Your task to perform on an android device: Search for a coffee table on IKEA Image 0: 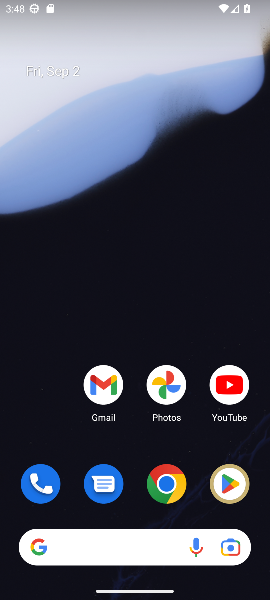
Step 0: click (157, 490)
Your task to perform on an android device: Search for a coffee table on IKEA Image 1: 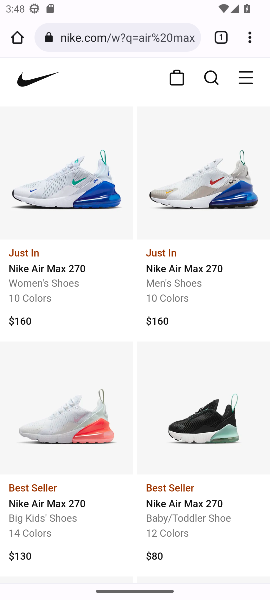
Step 1: click (146, 36)
Your task to perform on an android device: Search for a coffee table on IKEA Image 2: 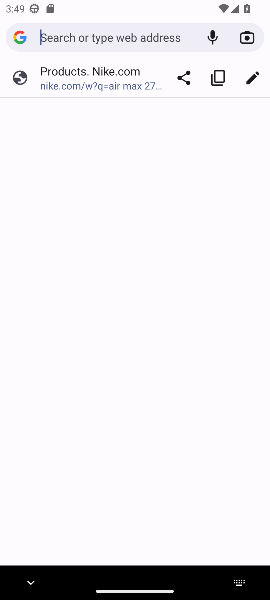
Step 2: type " IKEA"
Your task to perform on an android device: Search for a coffee table on IKEA Image 3: 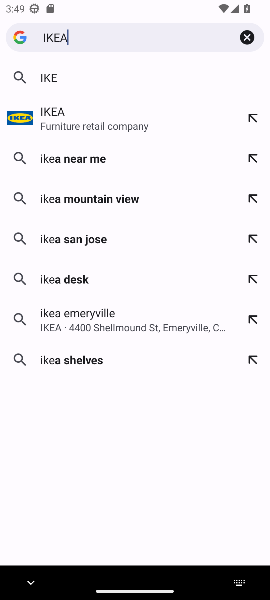
Step 3: press enter
Your task to perform on an android device: Search for a coffee table on IKEA Image 4: 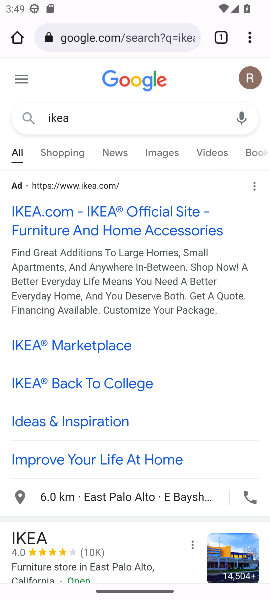
Step 4: click (72, 222)
Your task to perform on an android device: Search for a coffee table on IKEA Image 5: 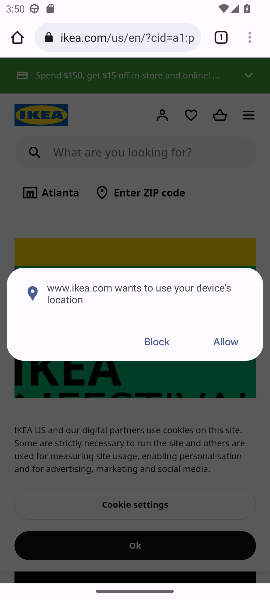
Step 5: click (159, 343)
Your task to perform on an android device: Search for a coffee table on IKEA Image 6: 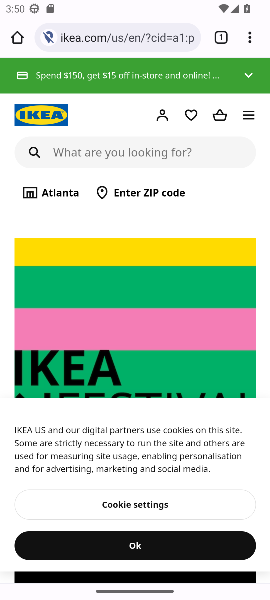
Step 6: click (51, 153)
Your task to perform on an android device: Search for a coffee table on IKEA Image 7: 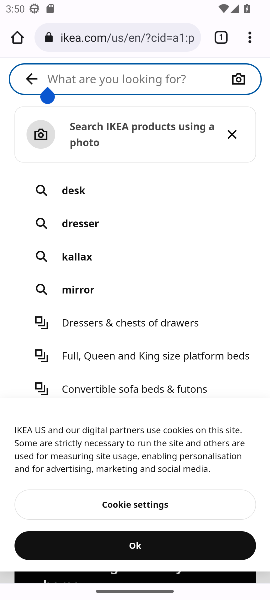
Step 7: type " coffee table"
Your task to perform on an android device: Search for a coffee table on IKEA Image 8: 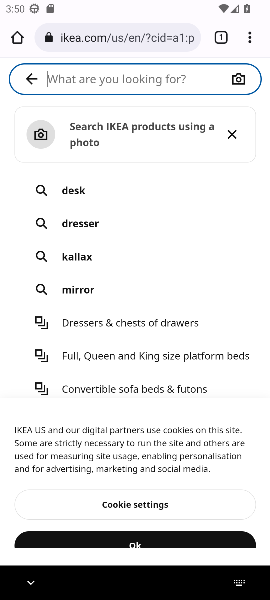
Step 8: press enter
Your task to perform on an android device: Search for a coffee table on IKEA Image 9: 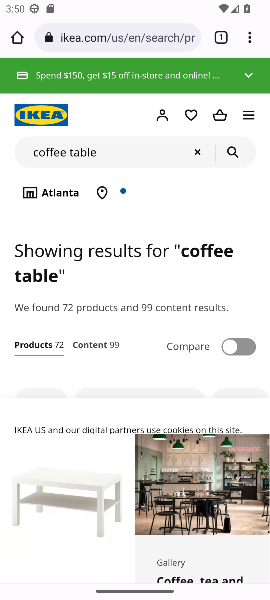
Step 9: drag from (87, 465) to (185, 242)
Your task to perform on an android device: Search for a coffee table on IKEA Image 10: 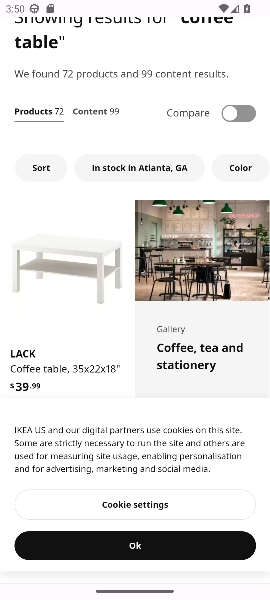
Step 10: click (151, 548)
Your task to perform on an android device: Search for a coffee table on IKEA Image 11: 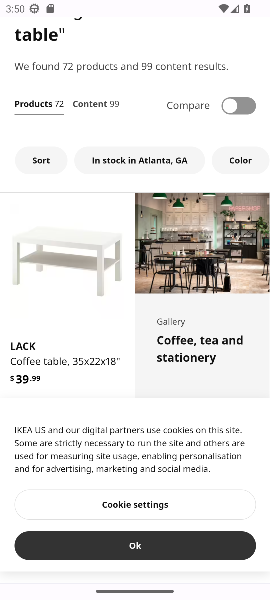
Step 11: click (131, 545)
Your task to perform on an android device: Search for a coffee table on IKEA Image 12: 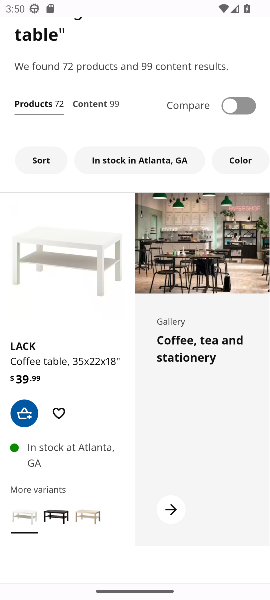
Step 12: task complete